Your task to perform on an android device: turn off sleep mode Image 0: 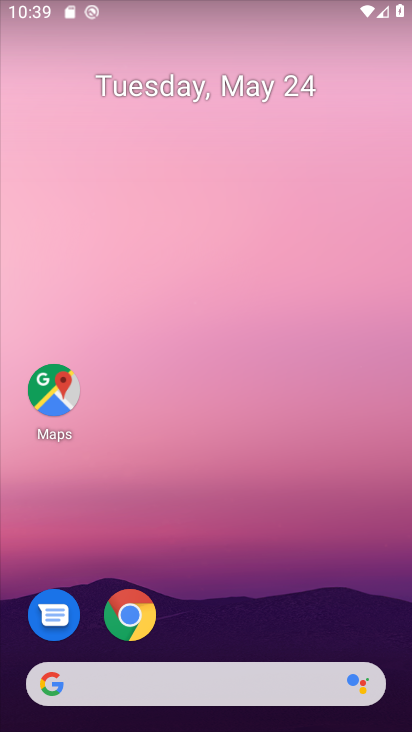
Step 0: drag from (223, 640) to (252, 137)
Your task to perform on an android device: turn off sleep mode Image 1: 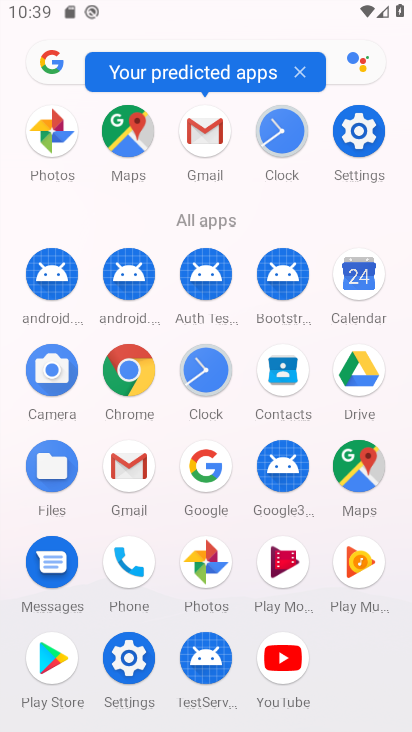
Step 1: click (372, 101)
Your task to perform on an android device: turn off sleep mode Image 2: 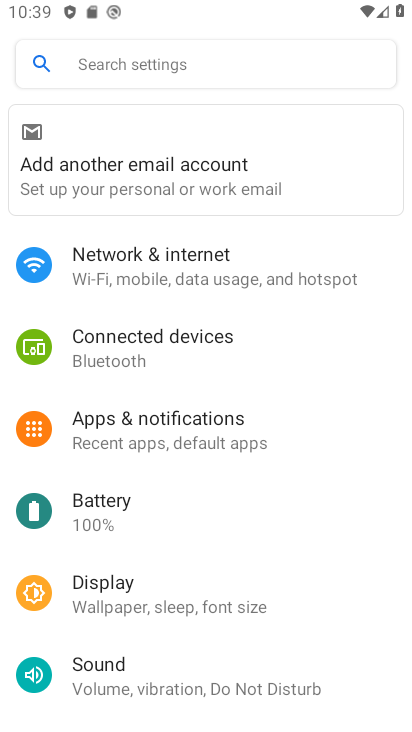
Step 2: click (175, 69)
Your task to perform on an android device: turn off sleep mode Image 3: 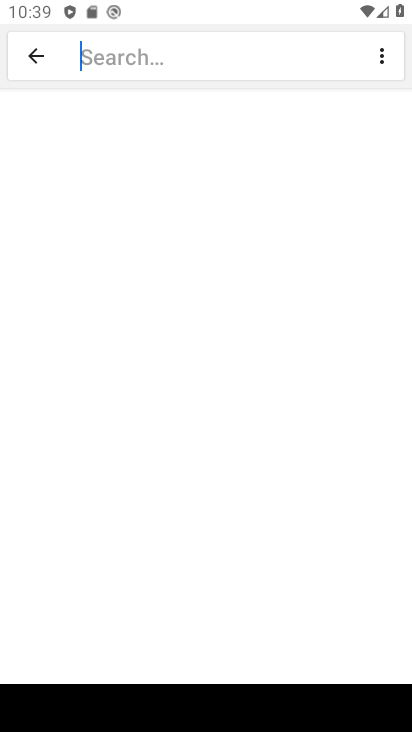
Step 3: drag from (382, 705) to (404, 575)
Your task to perform on an android device: turn off sleep mode Image 4: 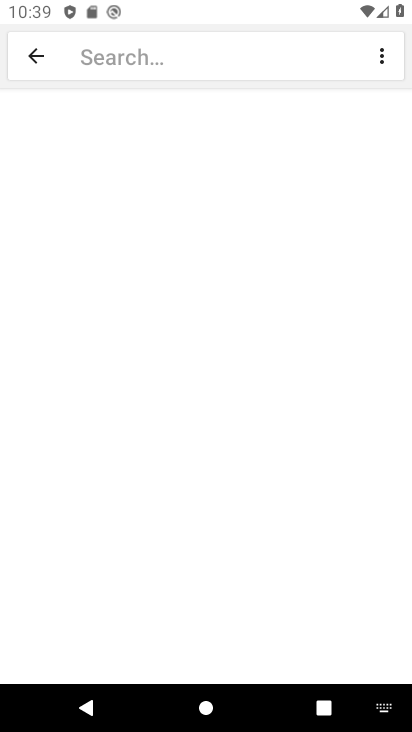
Step 4: click (385, 708)
Your task to perform on an android device: turn off sleep mode Image 5: 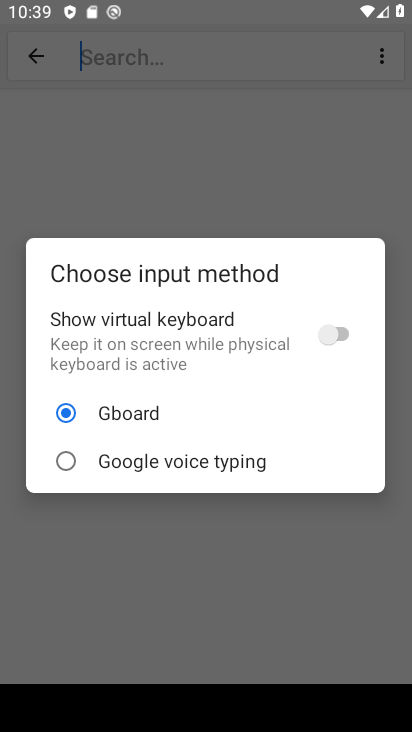
Step 5: click (334, 336)
Your task to perform on an android device: turn off sleep mode Image 6: 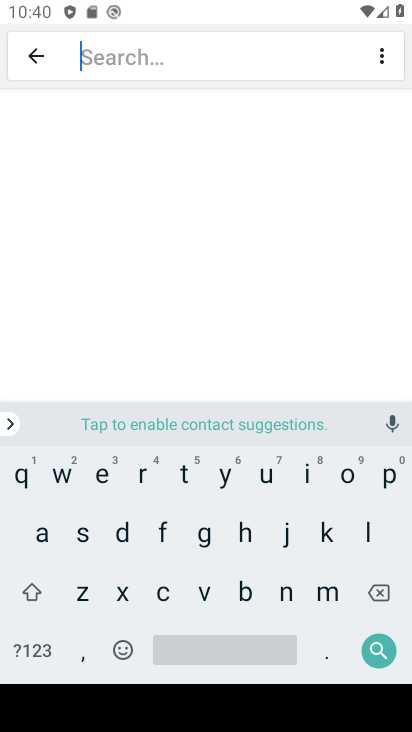
Step 6: click (85, 538)
Your task to perform on an android device: turn off sleep mode Image 7: 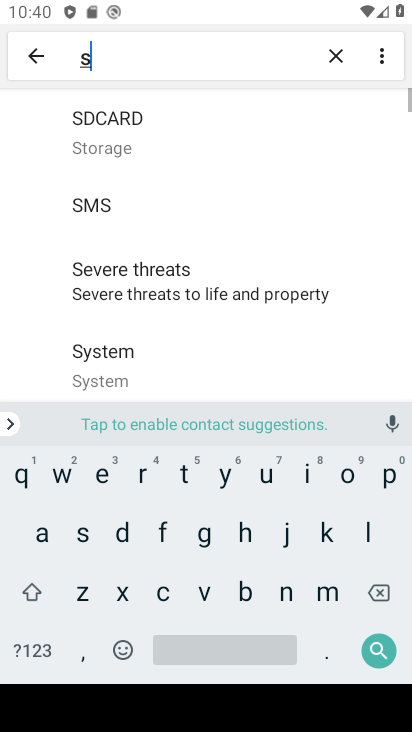
Step 7: click (369, 529)
Your task to perform on an android device: turn off sleep mode Image 8: 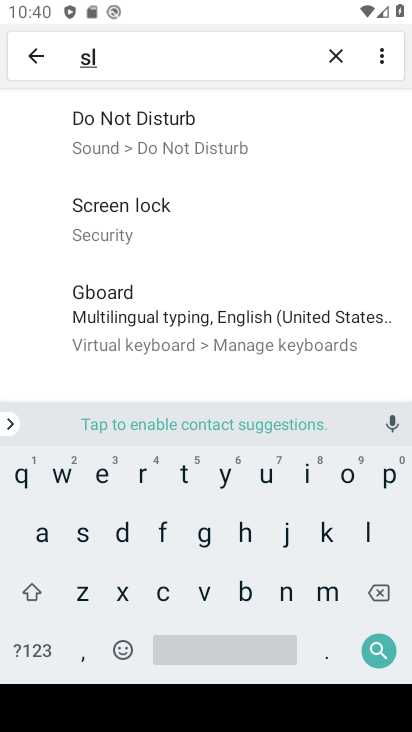
Step 8: click (199, 137)
Your task to perform on an android device: turn off sleep mode Image 9: 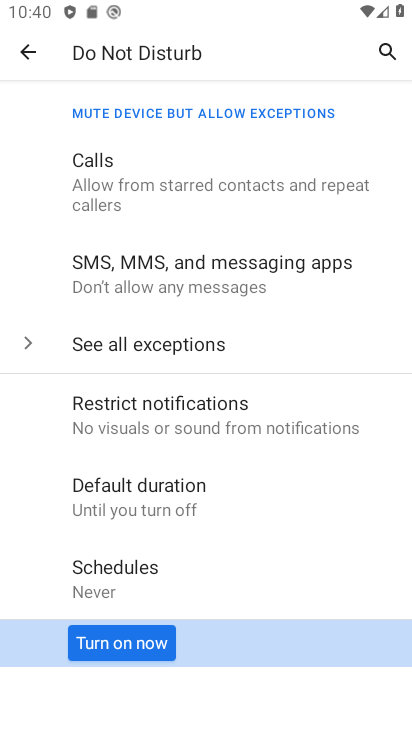
Step 9: click (135, 643)
Your task to perform on an android device: turn off sleep mode Image 10: 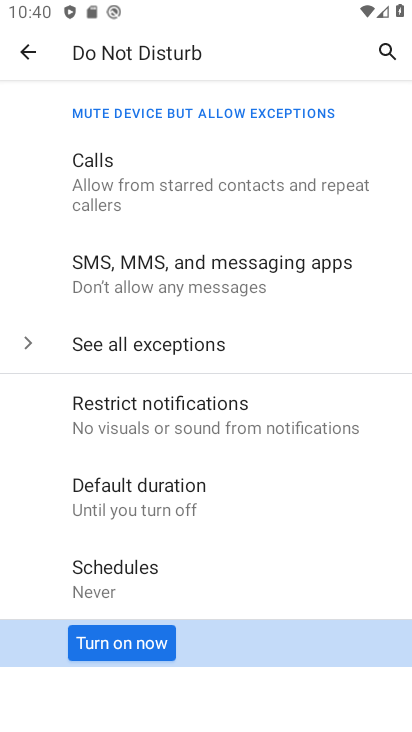
Step 10: click (97, 640)
Your task to perform on an android device: turn off sleep mode Image 11: 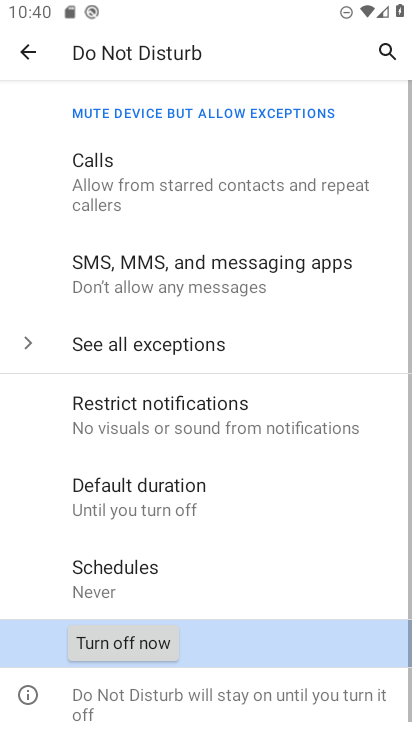
Step 11: click (114, 650)
Your task to perform on an android device: turn off sleep mode Image 12: 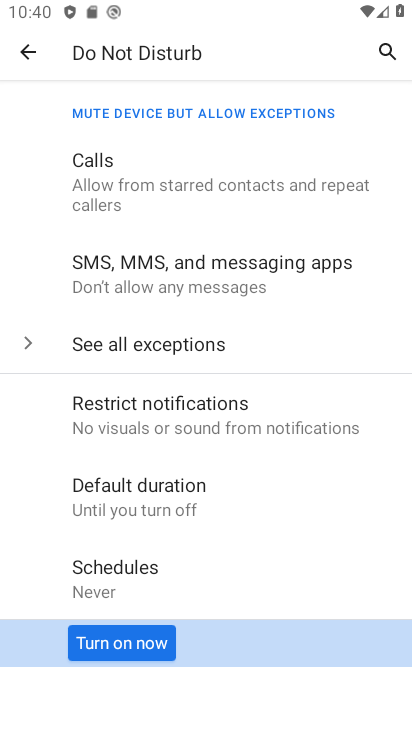
Step 12: task complete